Your task to perform on an android device: open chrome and create a bookmark for the current page Image 0: 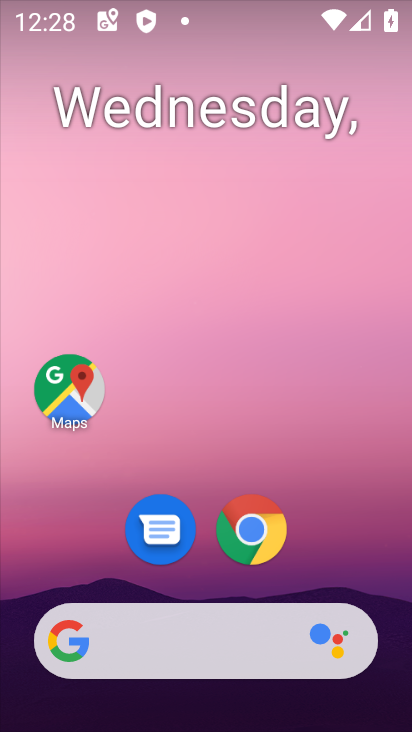
Step 0: click (252, 528)
Your task to perform on an android device: open chrome and create a bookmark for the current page Image 1: 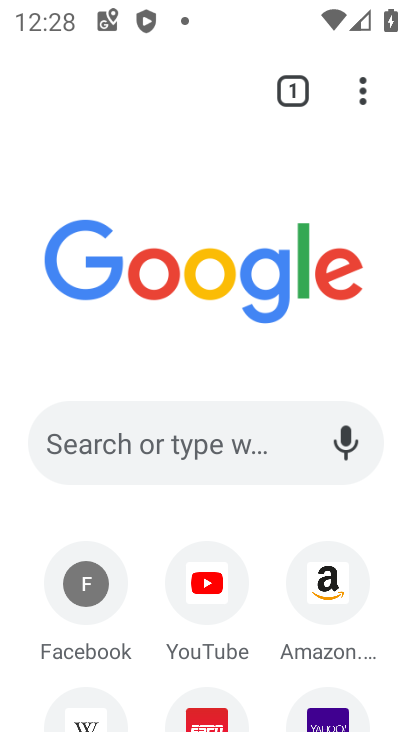
Step 1: click (361, 100)
Your task to perform on an android device: open chrome and create a bookmark for the current page Image 2: 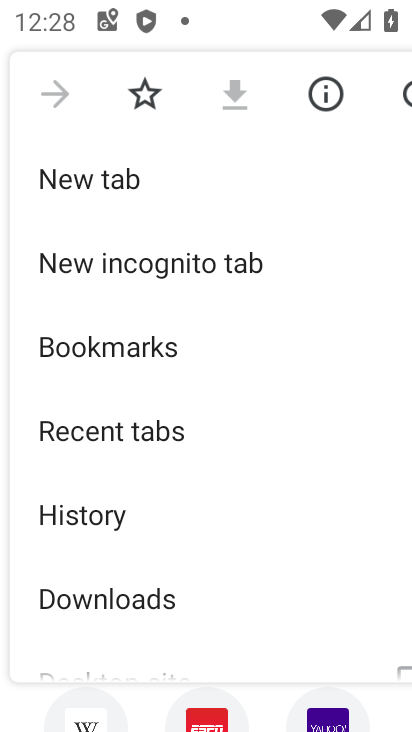
Step 2: click (141, 91)
Your task to perform on an android device: open chrome and create a bookmark for the current page Image 3: 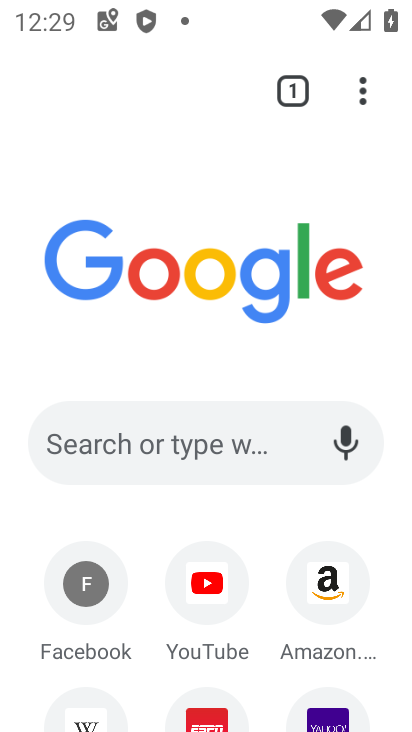
Step 3: task complete